Your task to perform on an android device: add a contact in the contacts app Image 0: 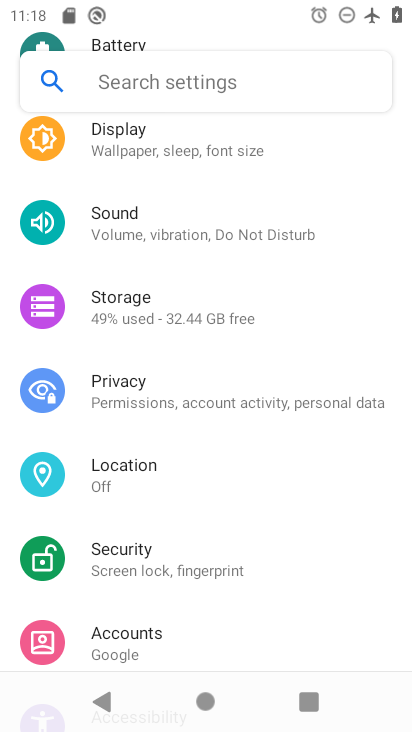
Step 0: press home button
Your task to perform on an android device: add a contact in the contacts app Image 1: 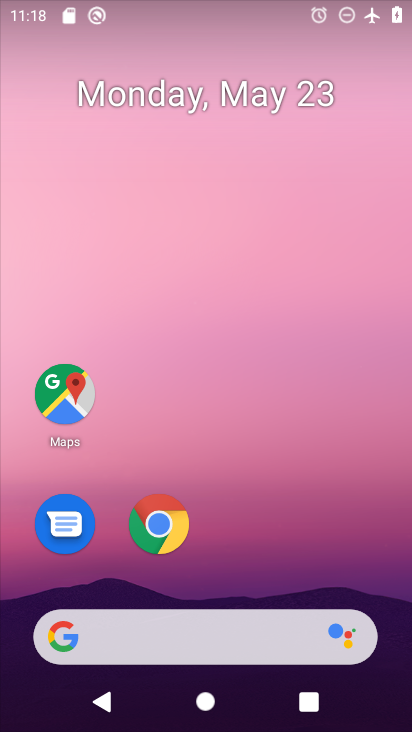
Step 1: drag from (192, 581) to (204, 231)
Your task to perform on an android device: add a contact in the contacts app Image 2: 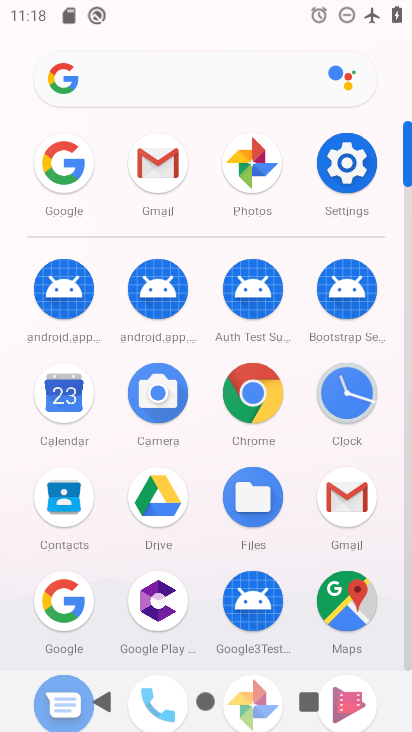
Step 2: click (54, 499)
Your task to perform on an android device: add a contact in the contacts app Image 3: 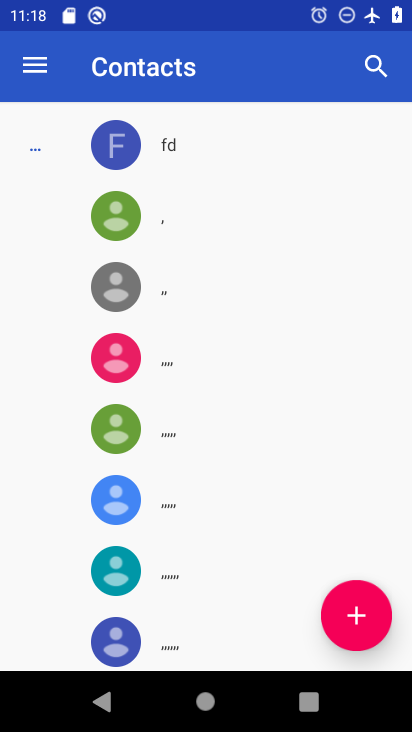
Step 3: click (361, 630)
Your task to perform on an android device: add a contact in the contacts app Image 4: 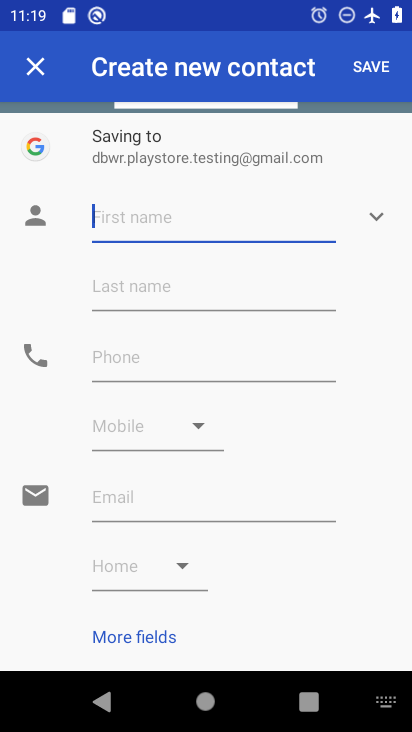
Step 4: type "vcnvc"
Your task to perform on an android device: add a contact in the contacts app Image 5: 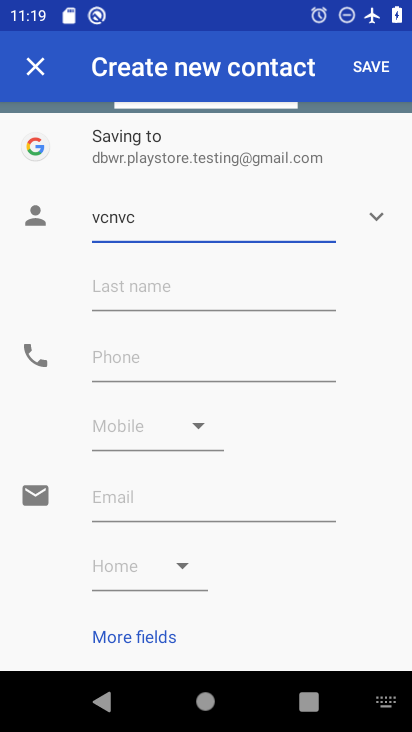
Step 5: click (117, 350)
Your task to perform on an android device: add a contact in the contacts app Image 6: 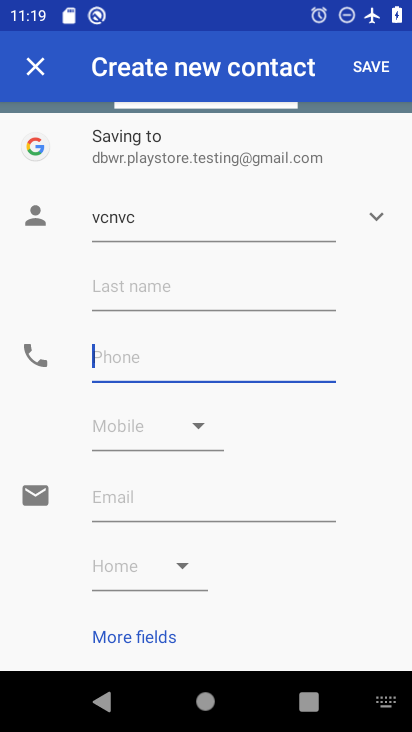
Step 6: type "8656575745"
Your task to perform on an android device: add a contact in the contacts app Image 7: 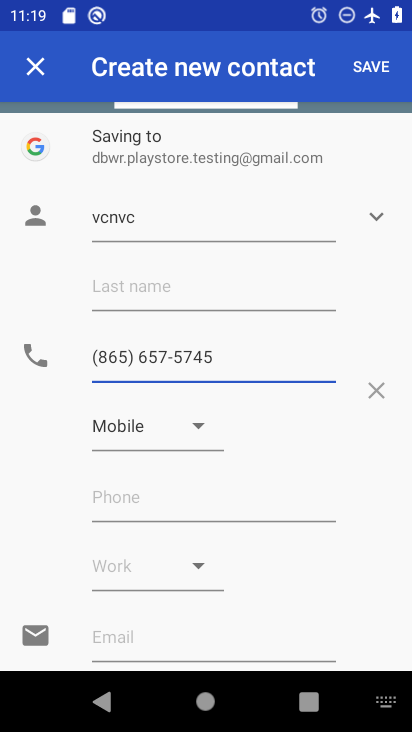
Step 7: click (370, 65)
Your task to perform on an android device: add a contact in the contacts app Image 8: 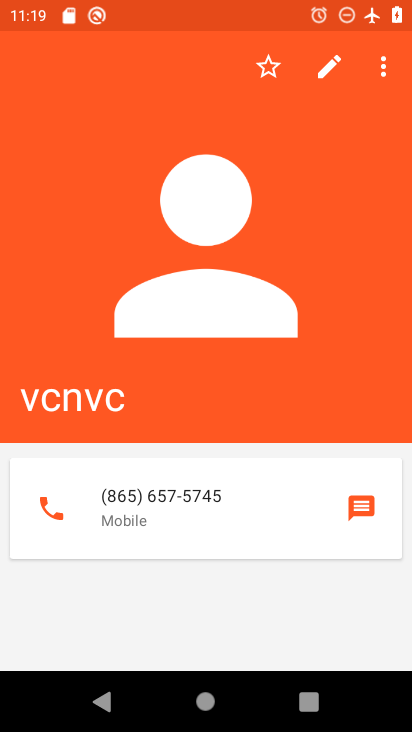
Step 8: task complete